Your task to perform on an android device: What is the recent news? Image 0: 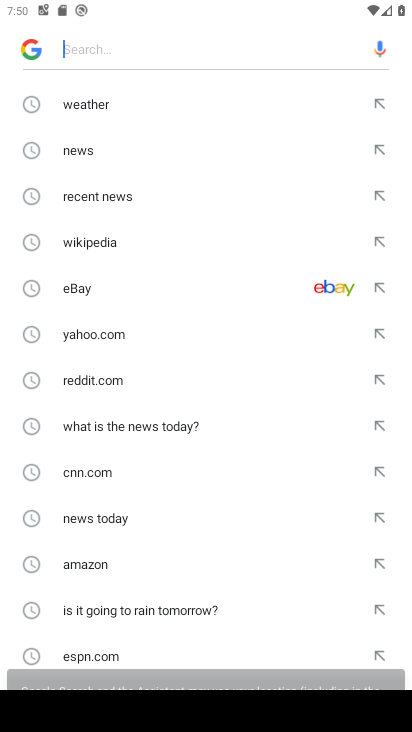
Step 0: click (120, 190)
Your task to perform on an android device: What is the recent news? Image 1: 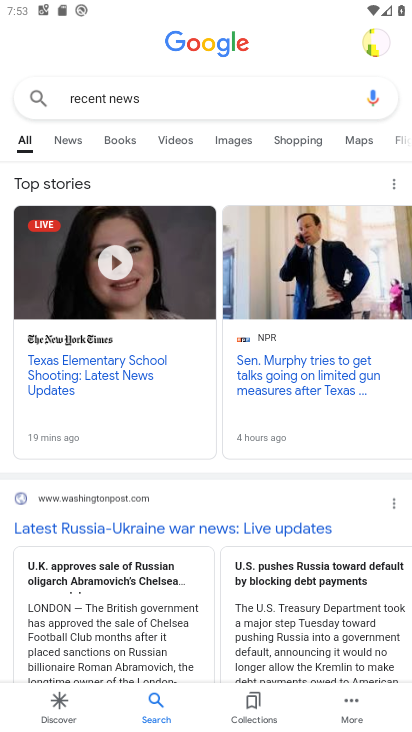
Step 1: task complete